Your task to perform on an android device: toggle wifi Image 0: 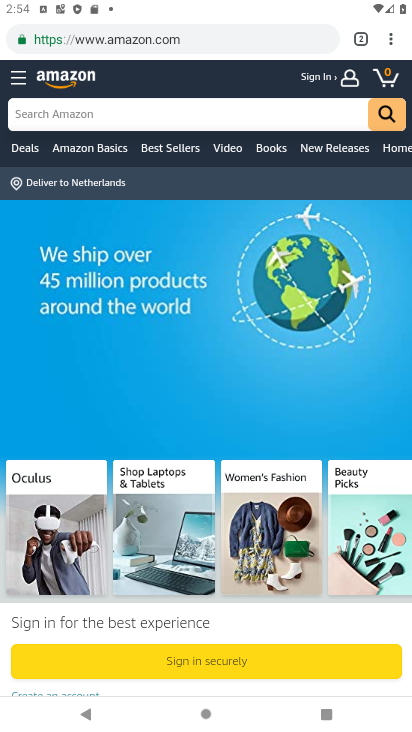
Step 0: press home button
Your task to perform on an android device: toggle wifi Image 1: 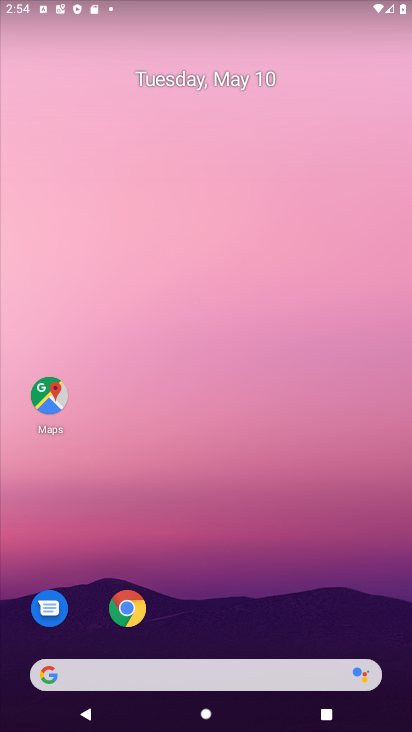
Step 1: drag from (380, 632) to (297, 225)
Your task to perform on an android device: toggle wifi Image 2: 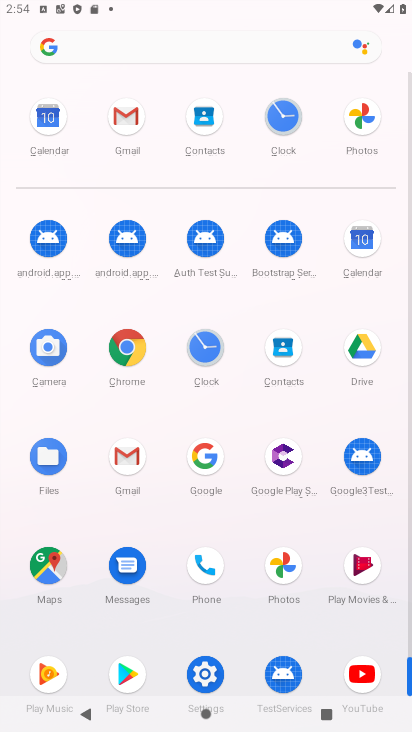
Step 2: click (204, 672)
Your task to perform on an android device: toggle wifi Image 3: 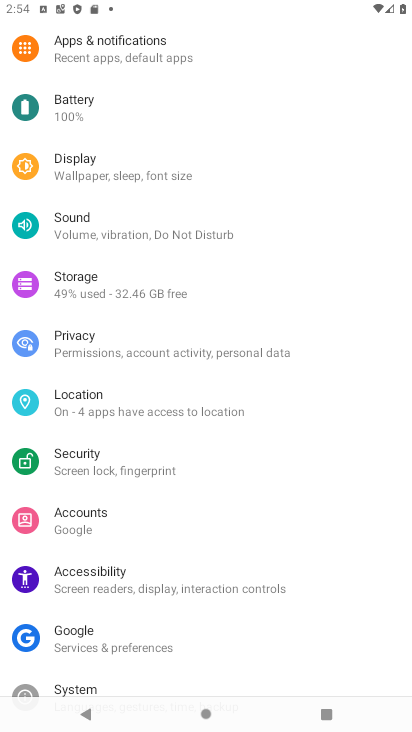
Step 3: drag from (295, 118) to (290, 401)
Your task to perform on an android device: toggle wifi Image 4: 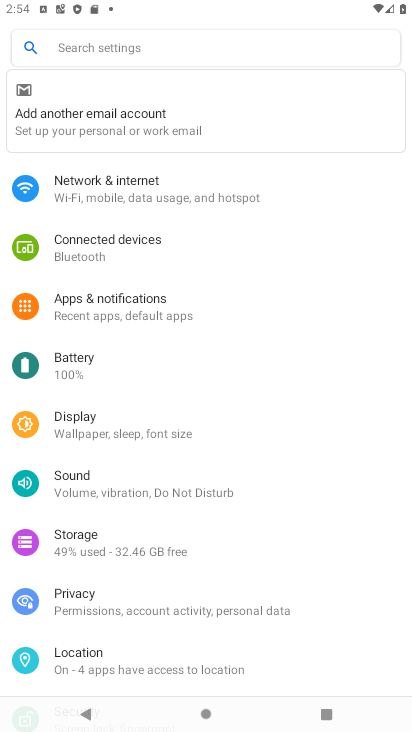
Step 4: click (84, 183)
Your task to perform on an android device: toggle wifi Image 5: 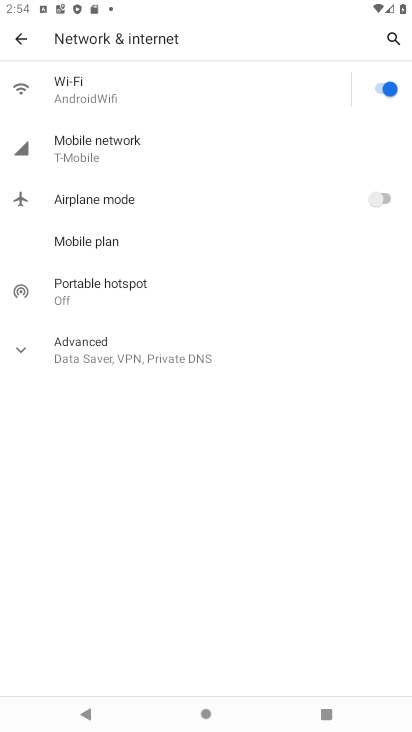
Step 5: click (375, 90)
Your task to perform on an android device: toggle wifi Image 6: 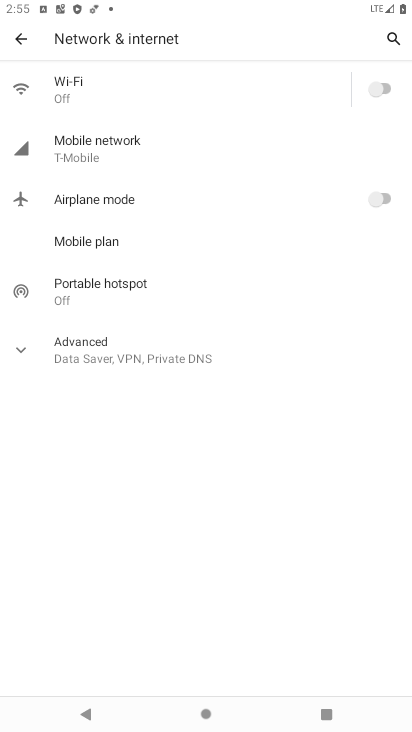
Step 6: task complete